Your task to perform on an android device: turn on sleep mode Image 0: 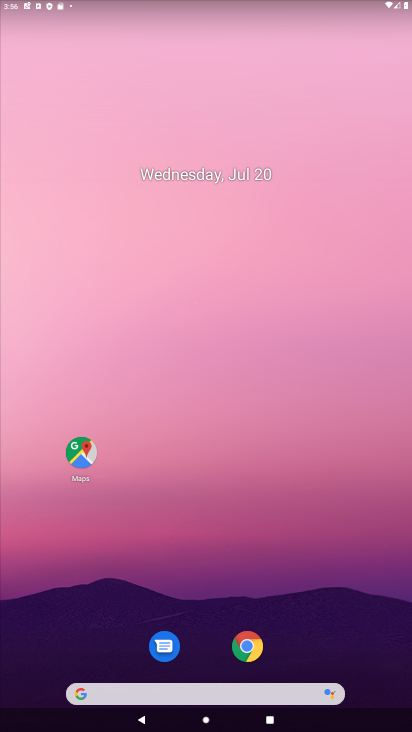
Step 0: drag from (202, 616) to (202, 150)
Your task to perform on an android device: turn on sleep mode Image 1: 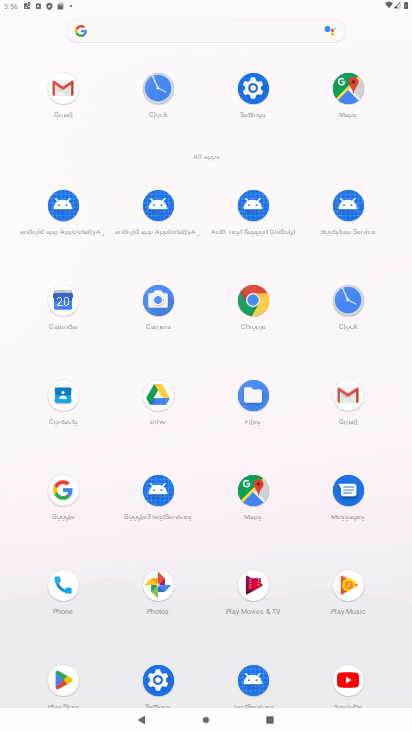
Step 1: click (243, 80)
Your task to perform on an android device: turn on sleep mode Image 2: 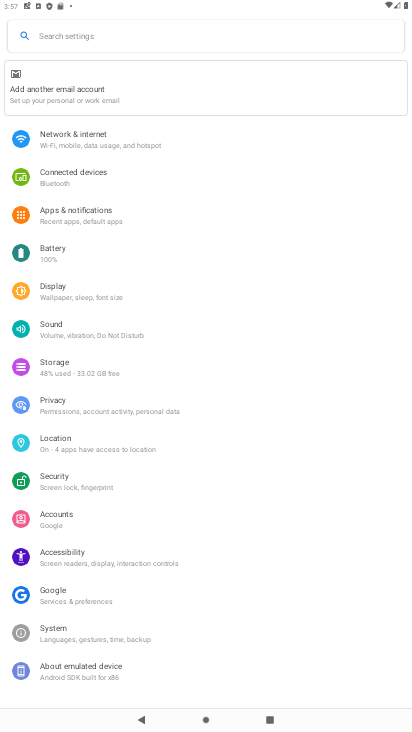
Step 2: click (86, 296)
Your task to perform on an android device: turn on sleep mode Image 3: 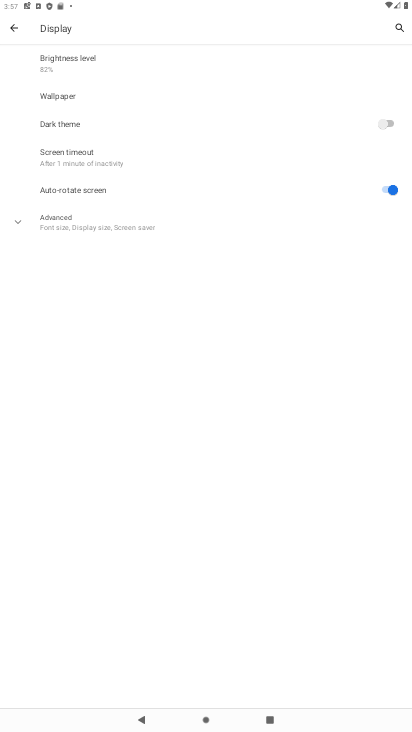
Step 3: click (121, 165)
Your task to perform on an android device: turn on sleep mode Image 4: 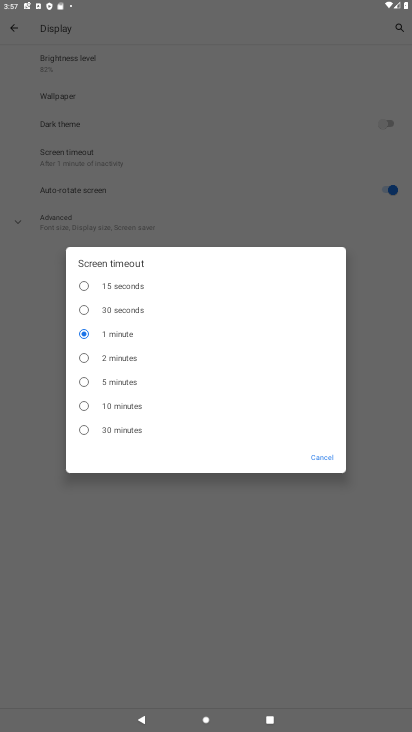
Step 4: click (124, 397)
Your task to perform on an android device: turn on sleep mode Image 5: 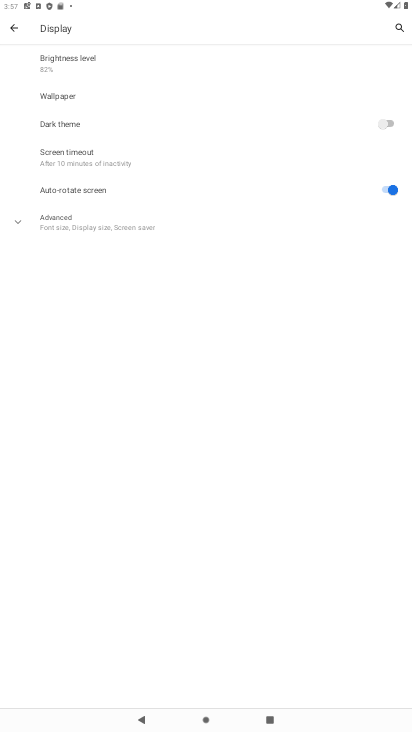
Step 5: task complete